Your task to perform on an android device: turn off picture-in-picture Image 0: 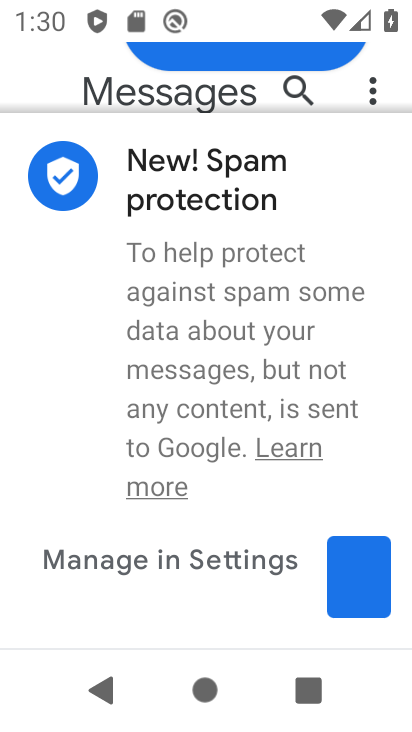
Step 0: press home button
Your task to perform on an android device: turn off picture-in-picture Image 1: 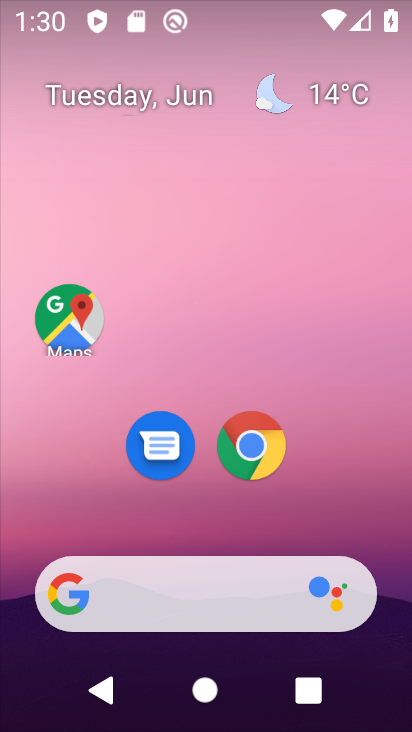
Step 1: drag from (400, 489) to (264, 76)
Your task to perform on an android device: turn off picture-in-picture Image 2: 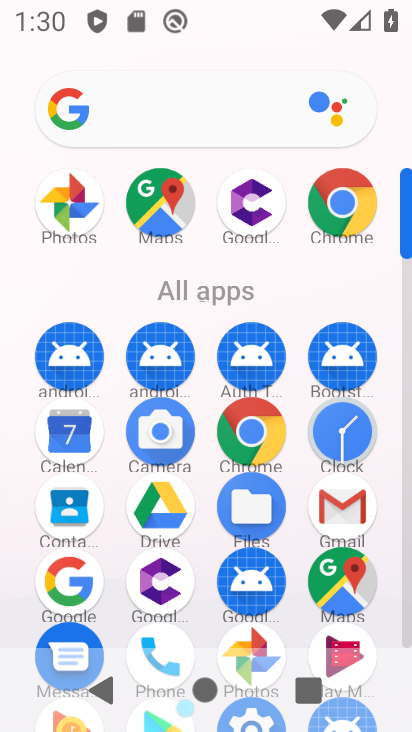
Step 2: drag from (123, 579) to (122, 286)
Your task to perform on an android device: turn off picture-in-picture Image 3: 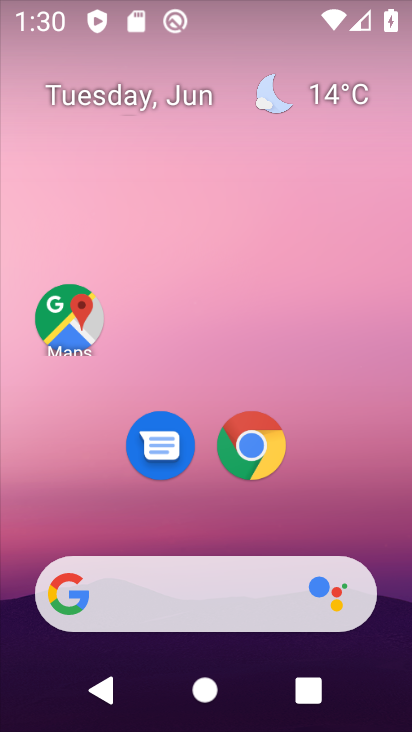
Step 3: drag from (332, 495) to (332, 91)
Your task to perform on an android device: turn off picture-in-picture Image 4: 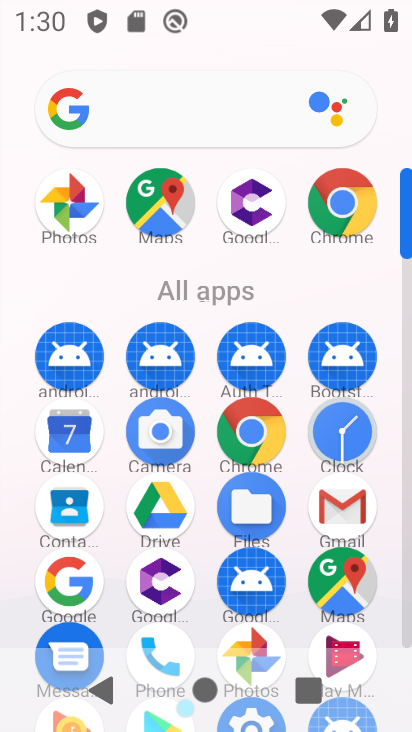
Step 4: drag from (305, 600) to (296, 276)
Your task to perform on an android device: turn off picture-in-picture Image 5: 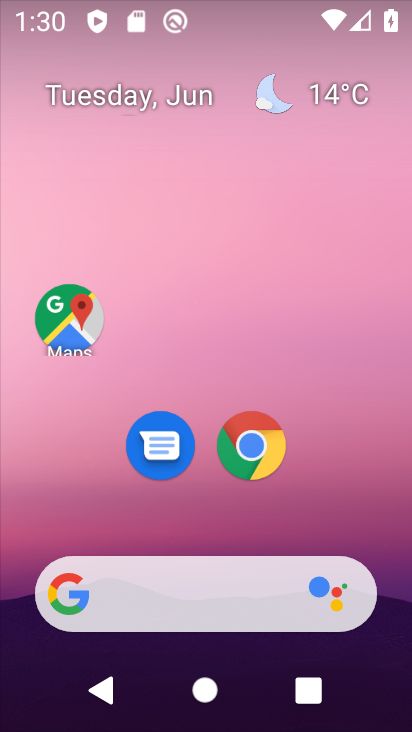
Step 5: drag from (364, 513) to (347, 139)
Your task to perform on an android device: turn off picture-in-picture Image 6: 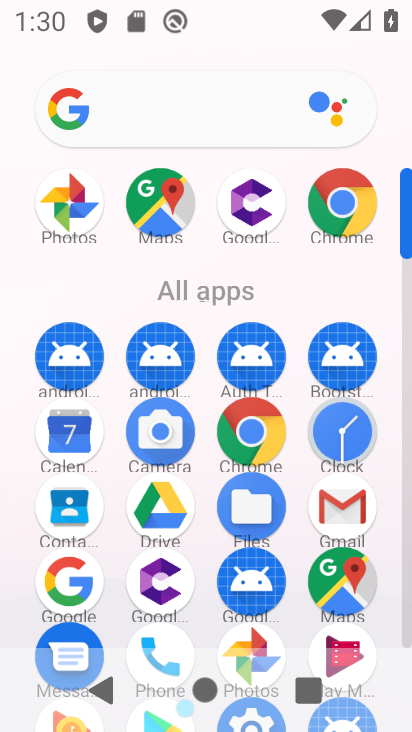
Step 6: drag from (296, 634) to (284, 325)
Your task to perform on an android device: turn off picture-in-picture Image 7: 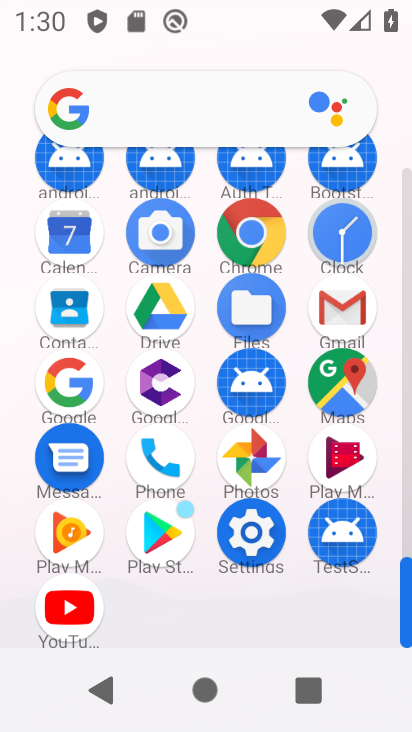
Step 7: click (259, 550)
Your task to perform on an android device: turn off picture-in-picture Image 8: 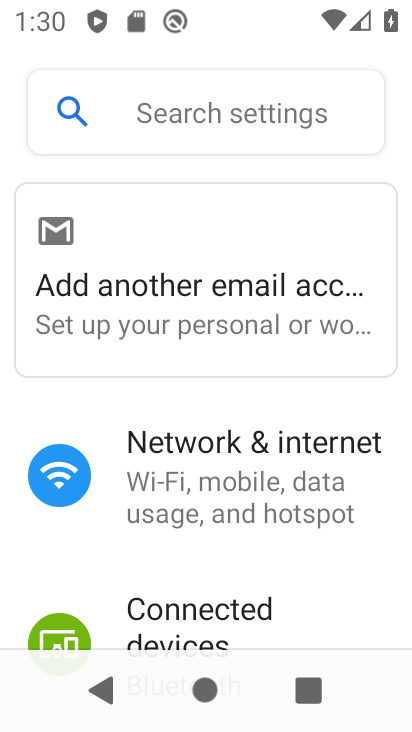
Step 8: drag from (315, 517) to (296, 237)
Your task to perform on an android device: turn off picture-in-picture Image 9: 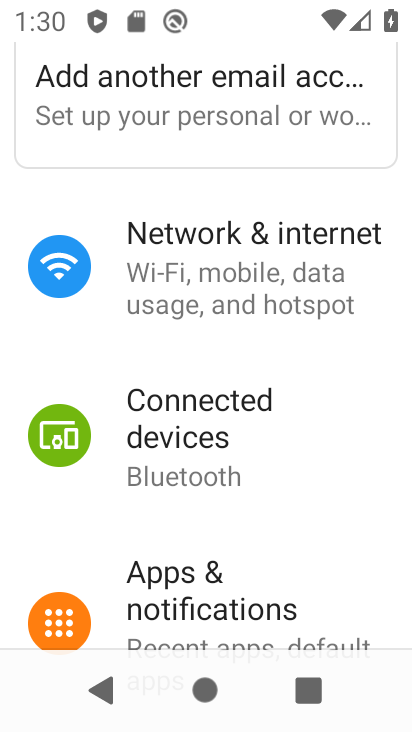
Step 9: click (303, 587)
Your task to perform on an android device: turn off picture-in-picture Image 10: 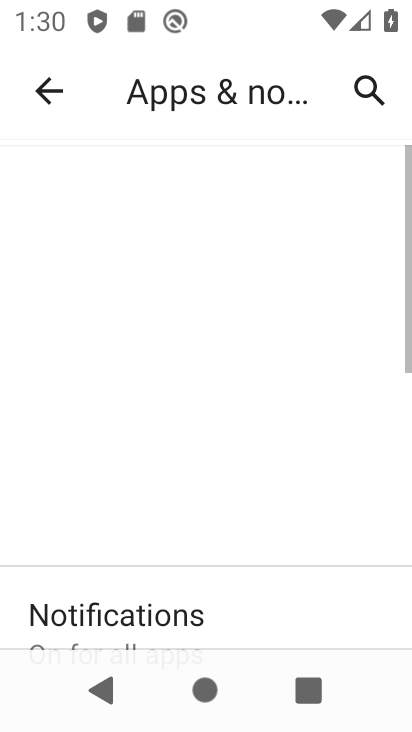
Step 10: drag from (304, 604) to (323, 215)
Your task to perform on an android device: turn off picture-in-picture Image 11: 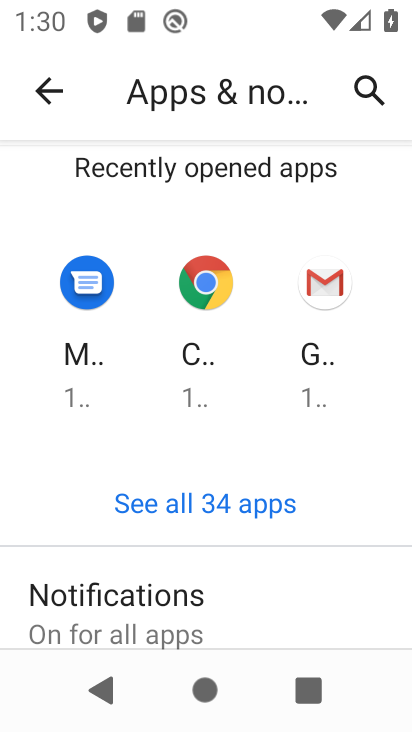
Step 11: drag from (256, 555) to (267, 210)
Your task to perform on an android device: turn off picture-in-picture Image 12: 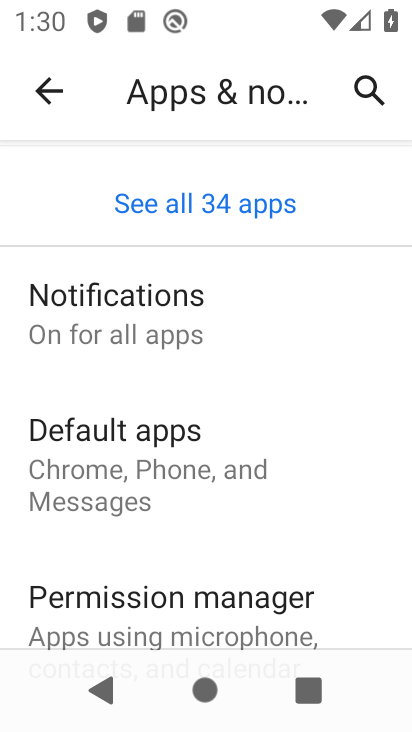
Step 12: drag from (240, 538) to (246, 233)
Your task to perform on an android device: turn off picture-in-picture Image 13: 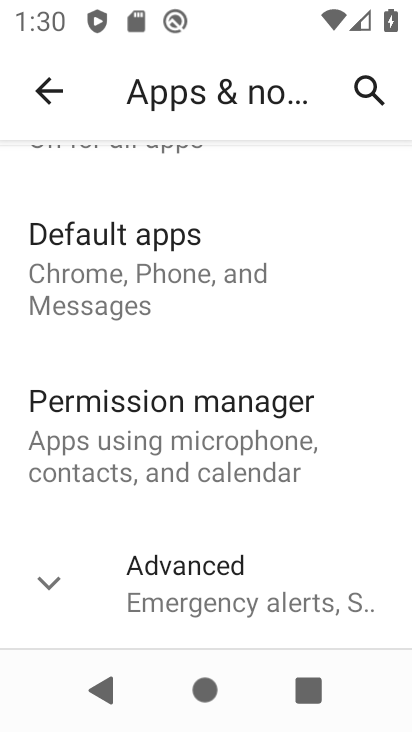
Step 13: click (259, 581)
Your task to perform on an android device: turn off picture-in-picture Image 14: 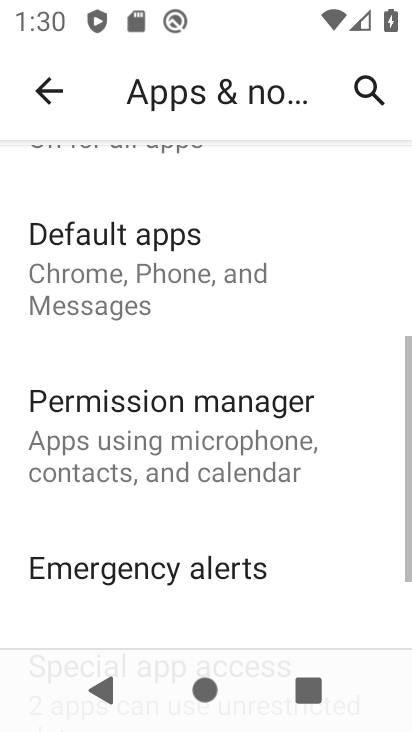
Step 14: drag from (264, 616) to (317, 281)
Your task to perform on an android device: turn off picture-in-picture Image 15: 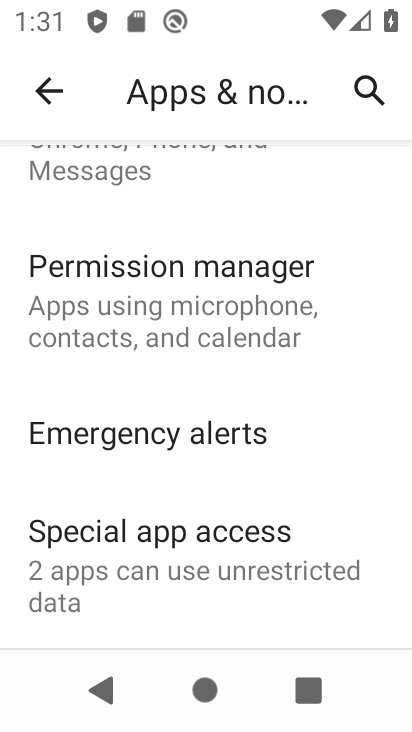
Step 15: click (260, 561)
Your task to perform on an android device: turn off picture-in-picture Image 16: 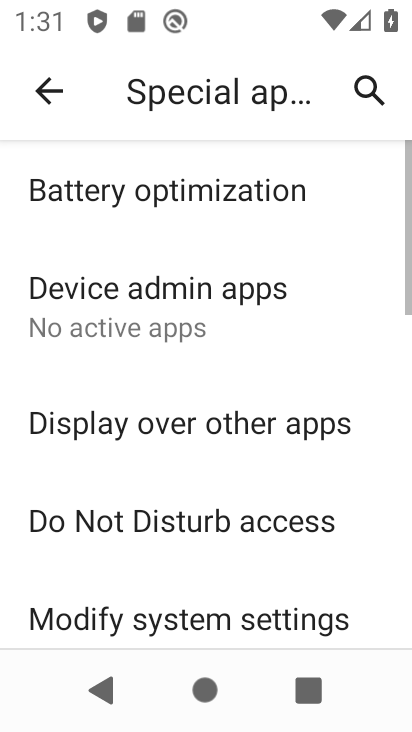
Step 16: drag from (288, 611) to (292, 226)
Your task to perform on an android device: turn off picture-in-picture Image 17: 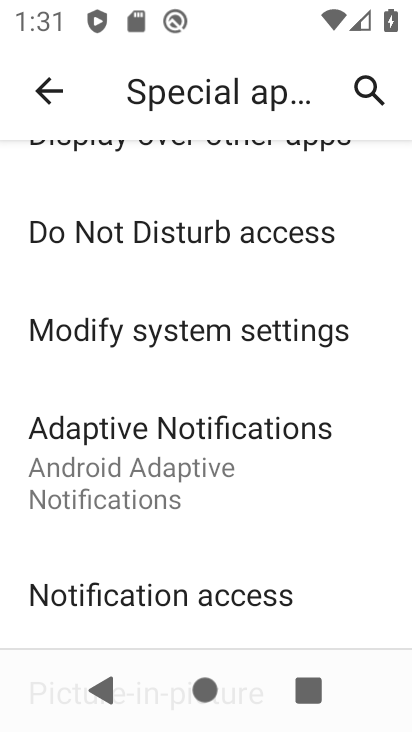
Step 17: drag from (257, 539) to (254, 277)
Your task to perform on an android device: turn off picture-in-picture Image 18: 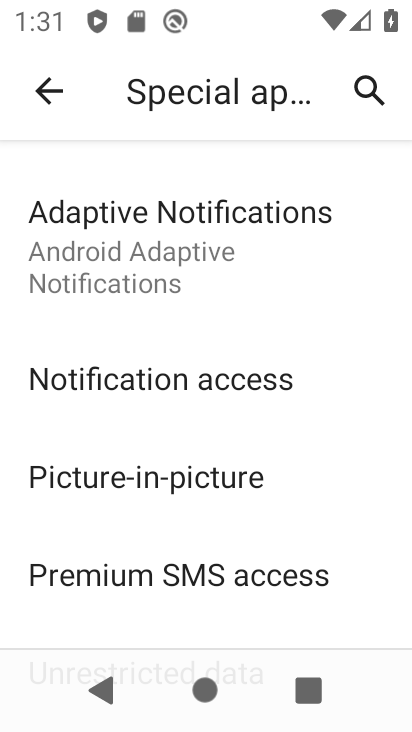
Step 18: click (225, 485)
Your task to perform on an android device: turn off picture-in-picture Image 19: 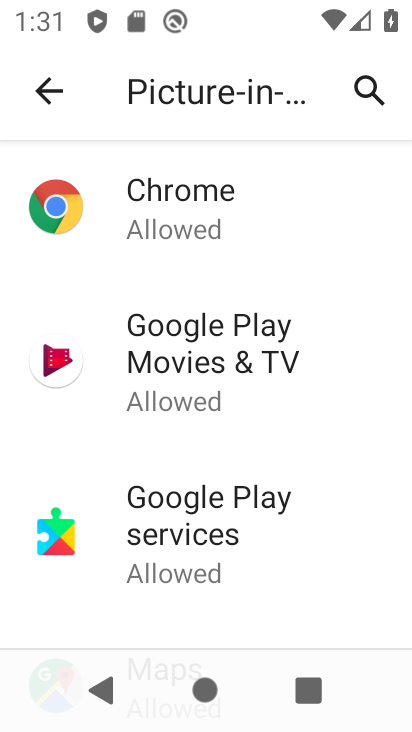
Step 19: click (254, 197)
Your task to perform on an android device: turn off picture-in-picture Image 20: 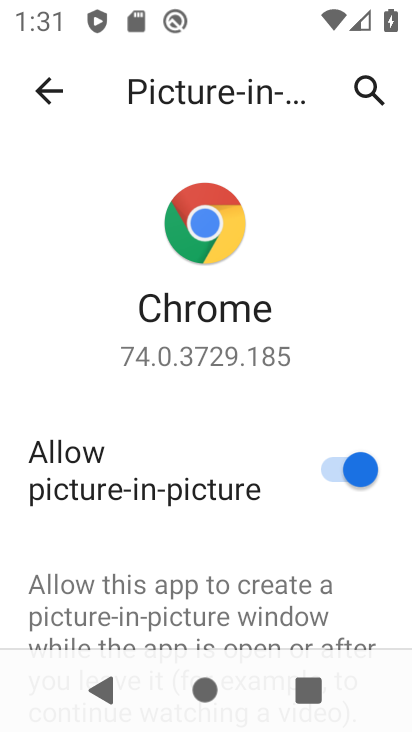
Step 20: click (325, 473)
Your task to perform on an android device: turn off picture-in-picture Image 21: 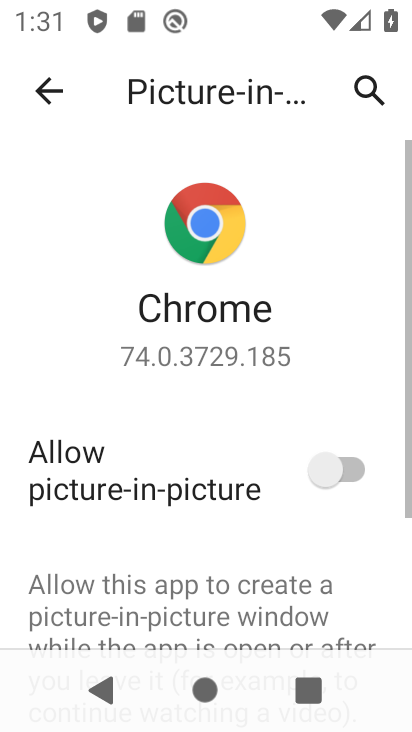
Step 21: task complete